Your task to perform on an android device: Go to Android settings Image 0: 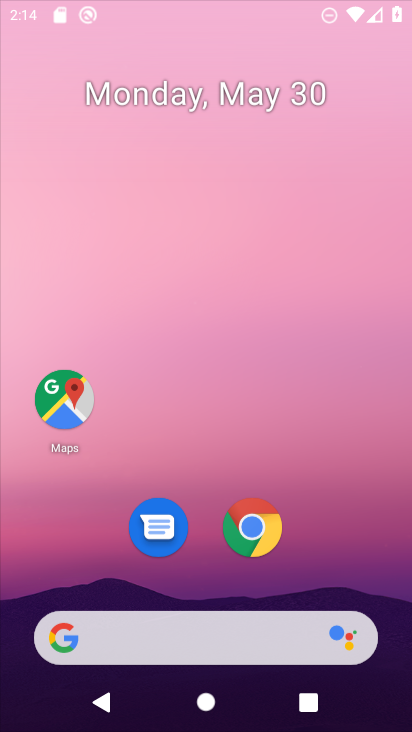
Step 0: click (266, 39)
Your task to perform on an android device: Go to Android settings Image 1: 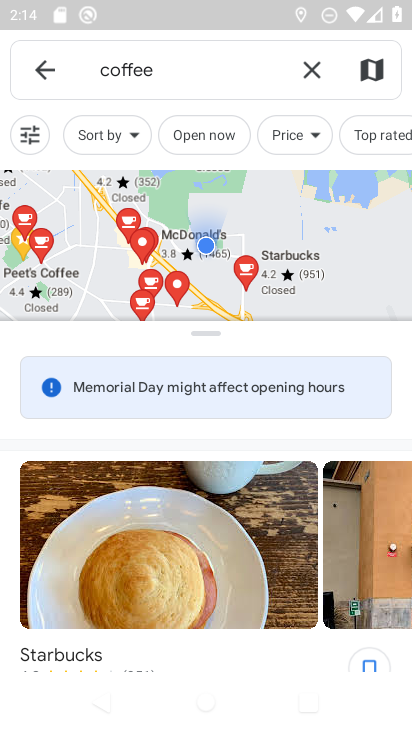
Step 1: click (308, 67)
Your task to perform on an android device: Go to Android settings Image 2: 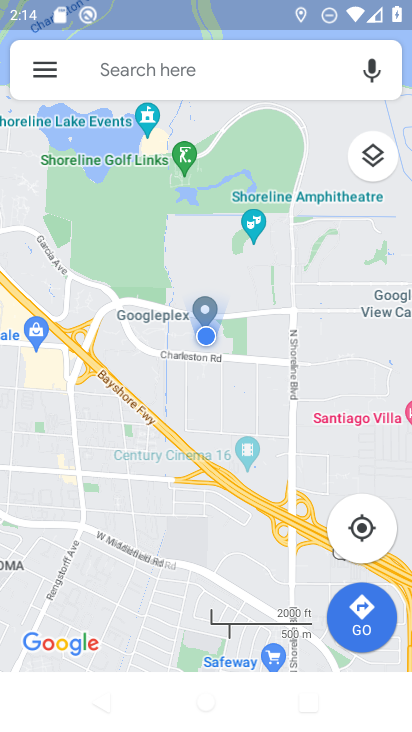
Step 2: press home button
Your task to perform on an android device: Go to Android settings Image 3: 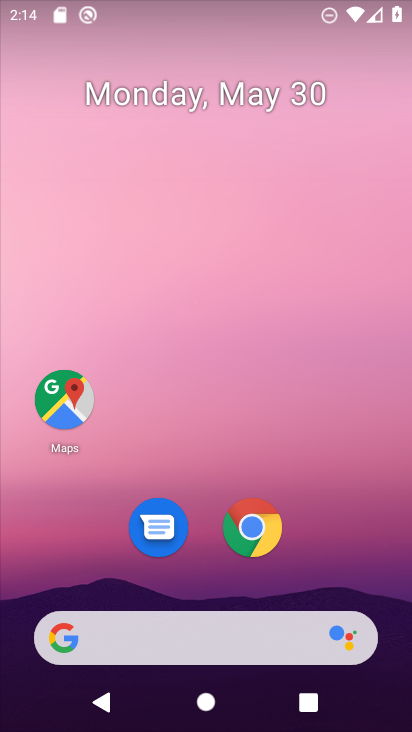
Step 3: drag from (237, 696) to (201, 136)
Your task to perform on an android device: Go to Android settings Image 4: 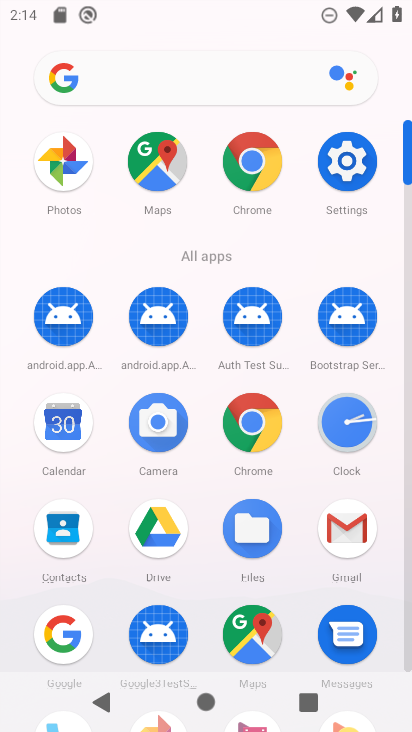
Step 4: click (345, 171)
Your task to perform on an android device: Go to Android settings Image 5: 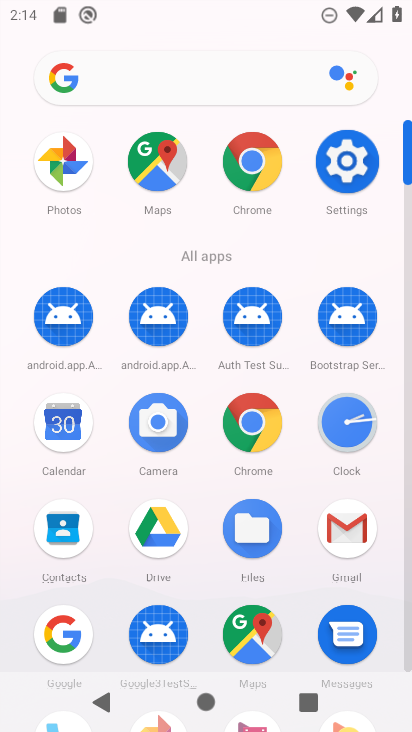
Step 5: click (345, 171)
Your task to perform on an android device: Go to Android settings Image 6: 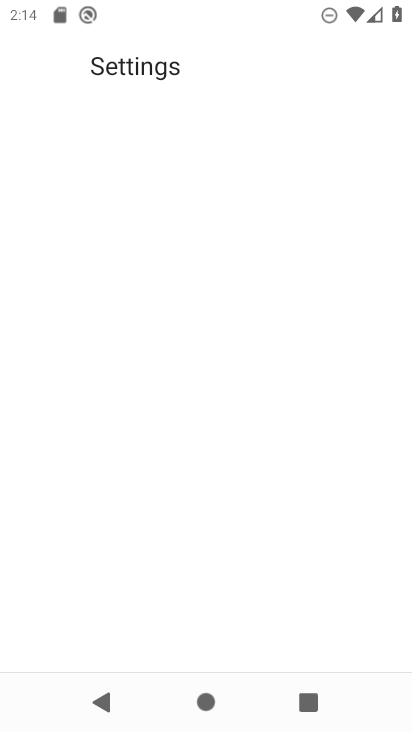
Step 6: click (345, 171)
Your task to perform on an android device: Go to Android settings Image 7: 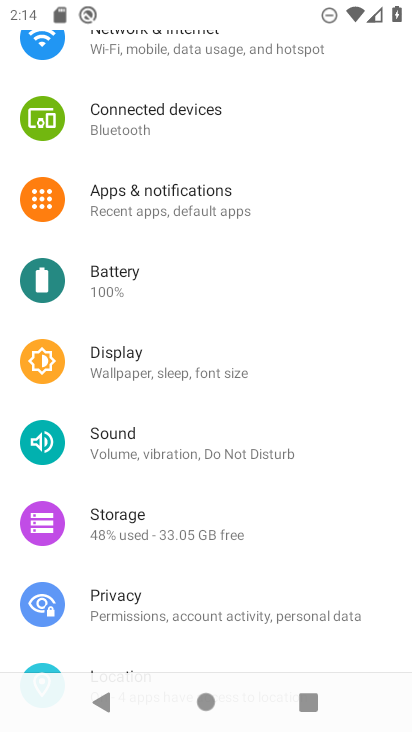
Step 7: drag from (119, 560) to (143, 281)
Your task to perform on an android device: Go to Android settings Image 8: 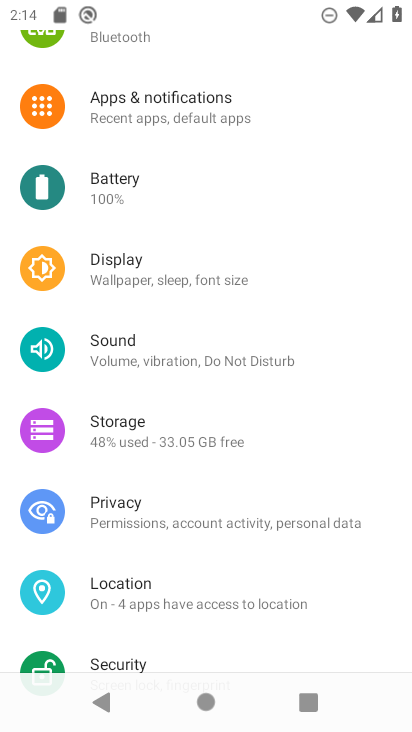
Step 8: drag from (237, 573) to (204, 288)
Your task to perform on an android device: Go to Android settings Image 9: 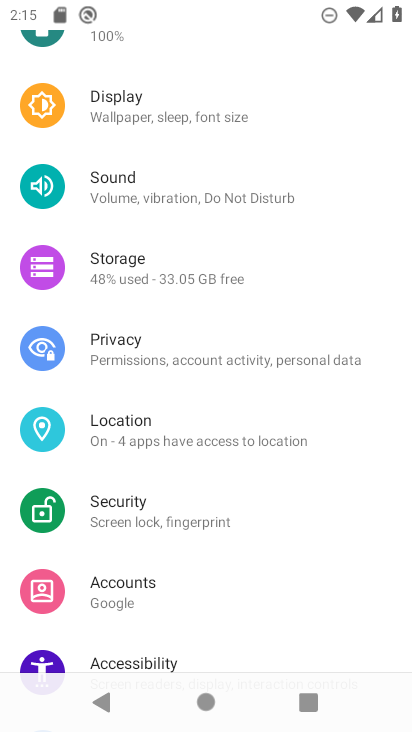
Step 9: drag from (198, 440) to (198, 196)
Your task to perform on an android device: Go to Android settings Image 10: 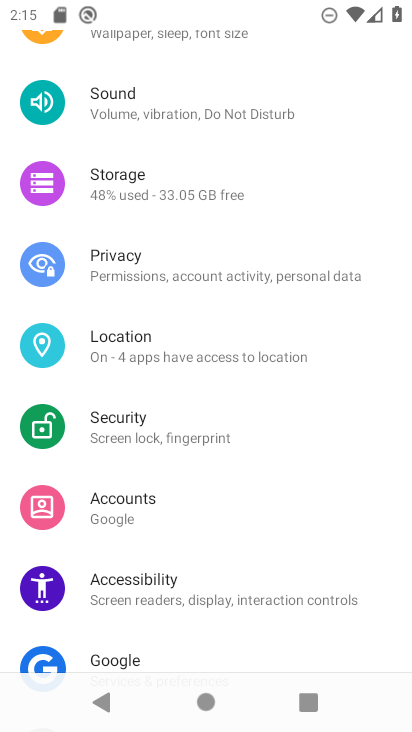
Step 10: drag from (168, 524) to (126, 213)
Your task to perform on an android device: Go to Android settings Image 11: 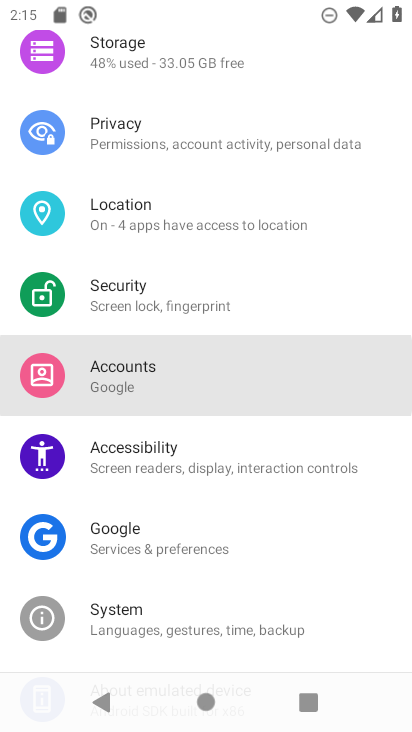
Step 11: drag from (125, 507) to (130, 260)
Your task to perform on an android device: Go to Android settings Image 12: 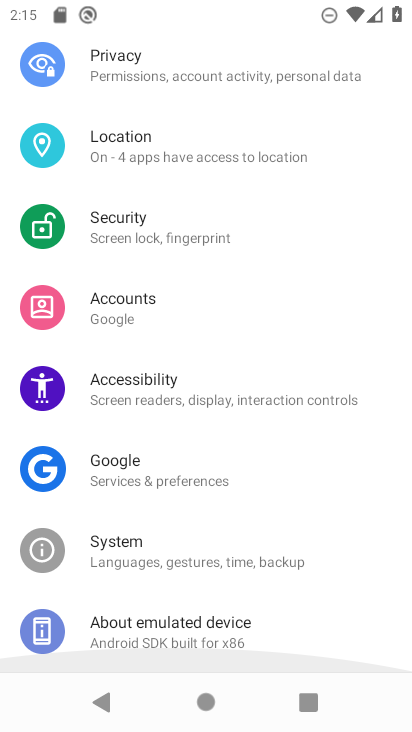
Step 12: drag from (228, 571) to (251, 185)
Your task to perform on an android device: Go to Android settings Image 13: 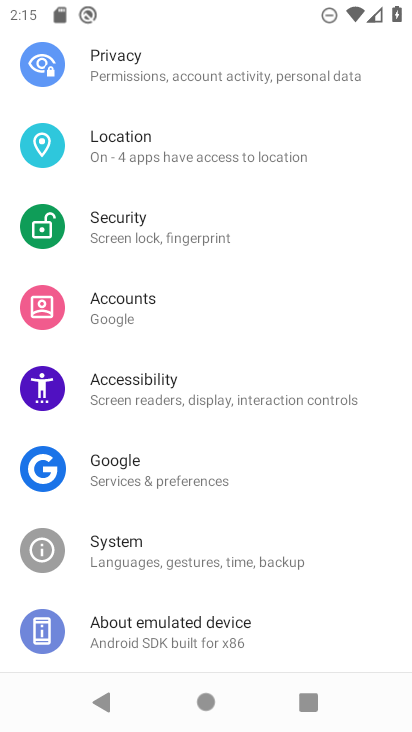
Step 13: click (163, 627)
Your task to perform on an android device: Go to Android settings Image 14: 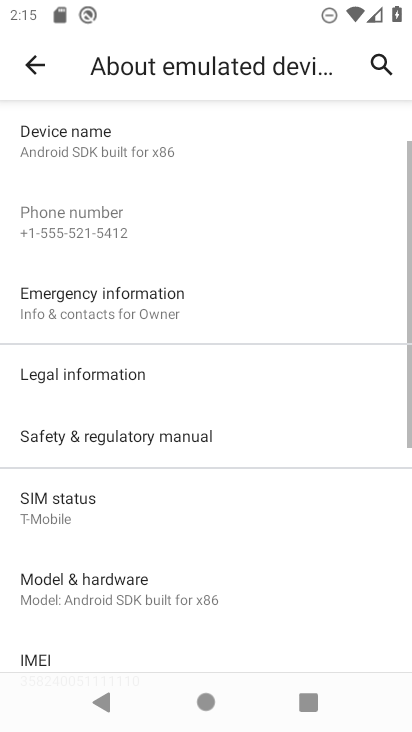
Step 14: drag from (107, 532) to (82, 203)
Your task to perform on an android device: Go to Android settings Image 15: 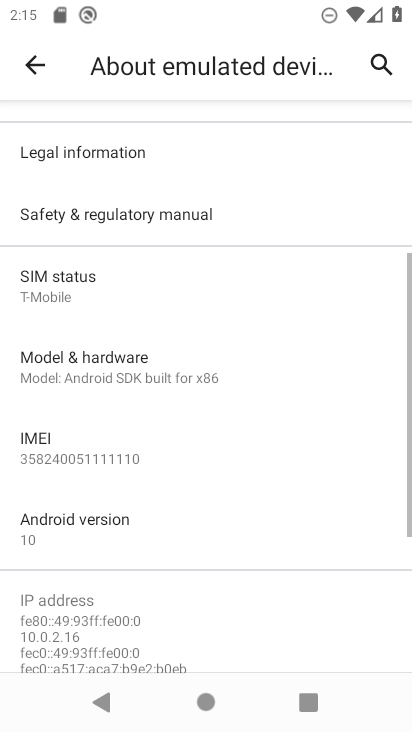
Step 15: click (64, 165)
Your task to perform on an android device: Go to Android settings Image 16: 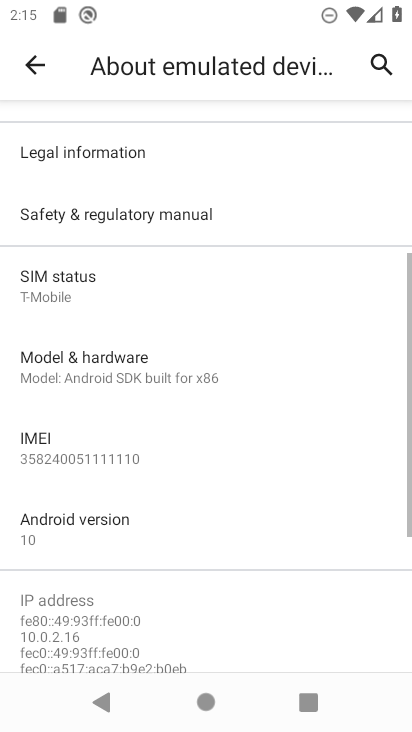
Step 16: task complete